Your task to perform on an android device: Open Google Image 0: 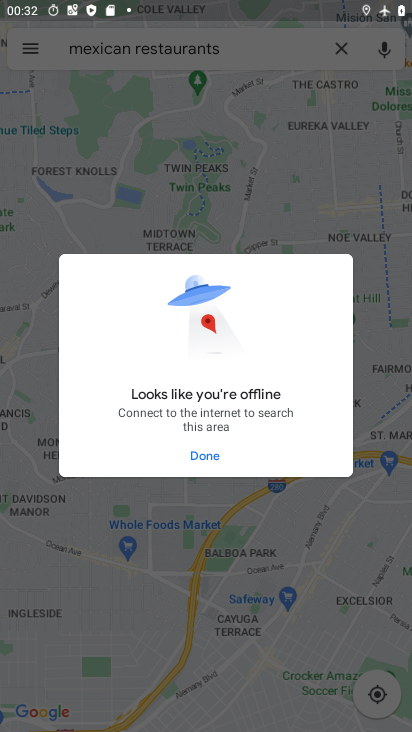
Step 0: press home button
Your task to perform on an android device: Open Google Image 1: 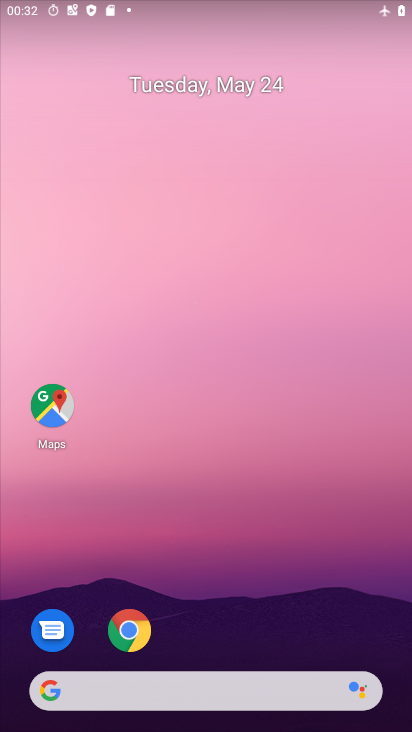
Step 1: drag from (208, 643) to (238, 5)
Your task to perform on an android device: Open Google Image 2: 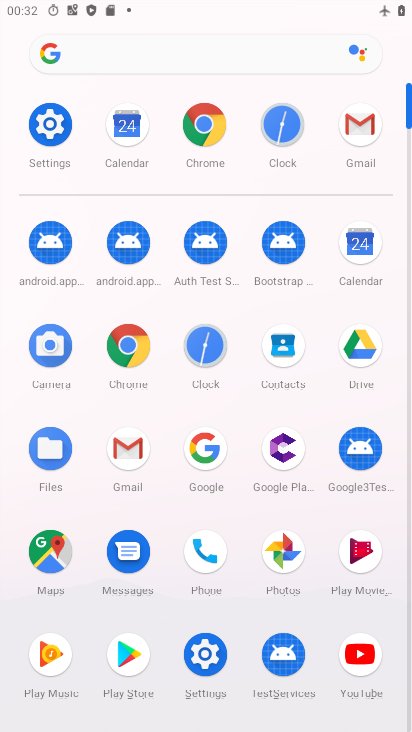
Step 2: click (211, 454)
Your task to perform on an android device: Open Google Image 3: 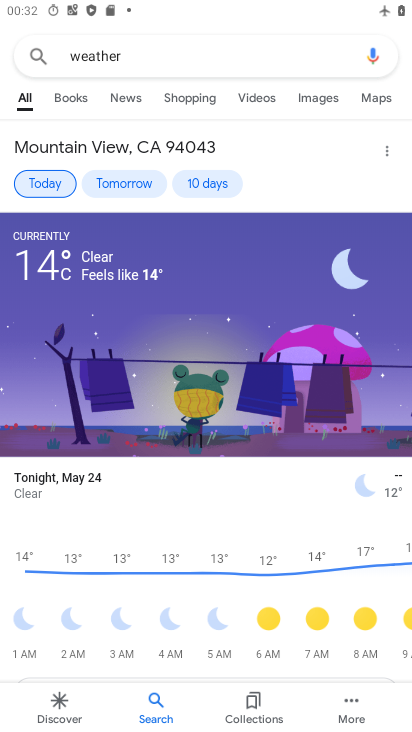
Step 3: task complete